Your task to perform on an android device: toggle airplane mode Image 0: 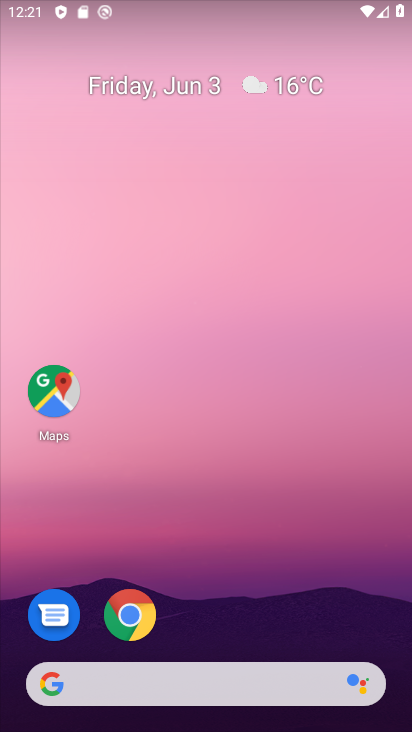
Step 0: drag from (285, 586) to (259, 262)
Your task to perform on an android device: toggle airplane mode Image 1: 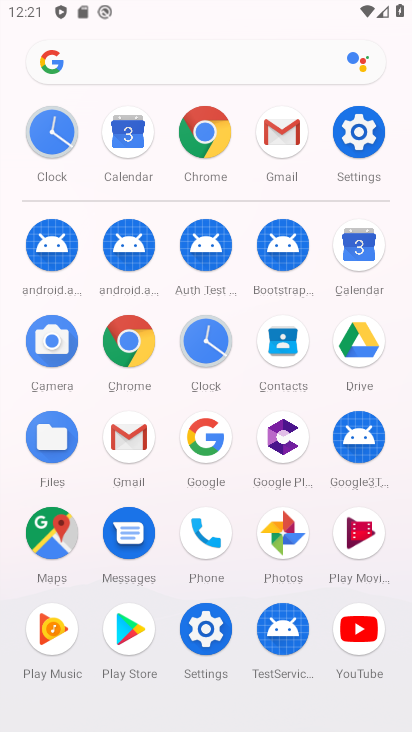
Step 1: click (359, 133)
Your task to perform on an android device: toggle airplane mode Image 2: 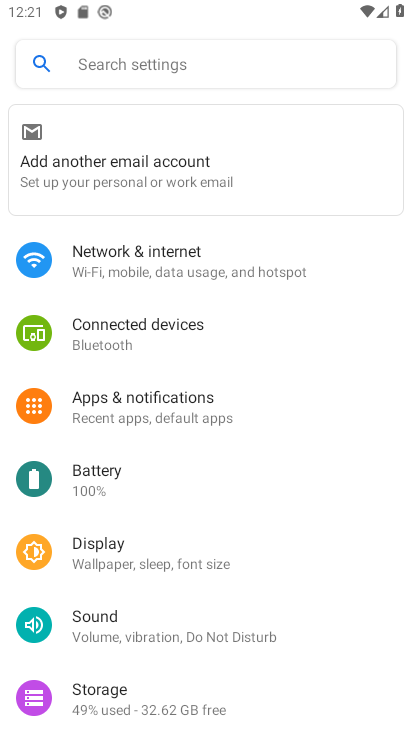
Step 2: click (181, 255)
Your task to perform on an android device: toggle airplane mode Image 3: 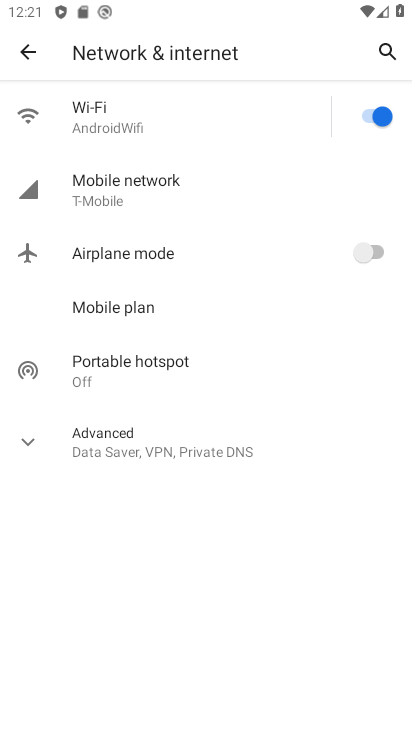
Step 3: click (344, 248)
Your task to perform on an android device: toggle airplane mode Image 4: 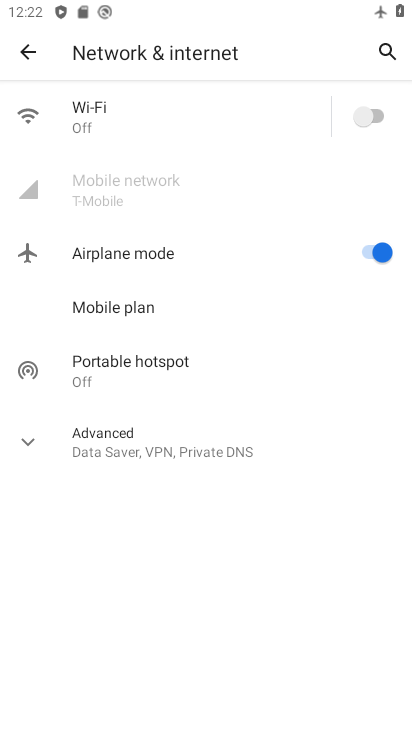
Step 4: task complete